Your task to perform on an android device: check android version Image 0: 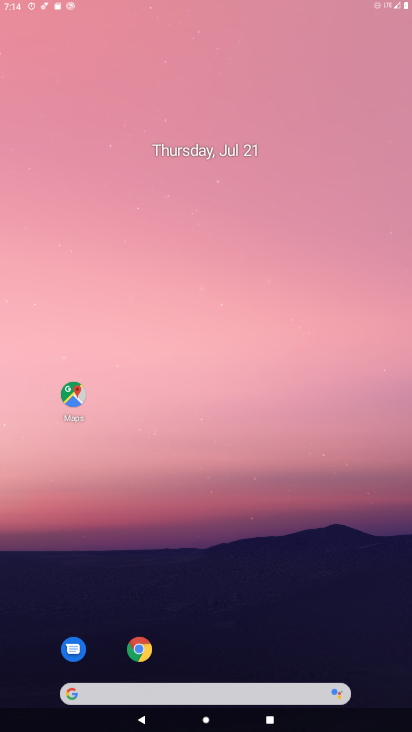
Step 0: click (292, 436)
Your task to perform on an android device: check android version Image 1: 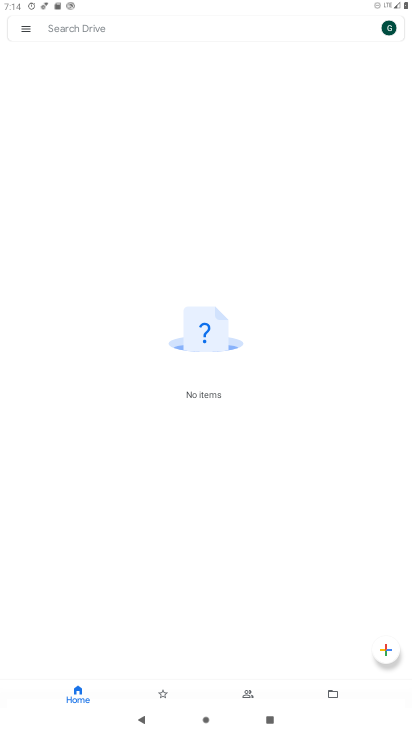
Step 1: press home button
Your task to perform on an android device: check android version Image 2: 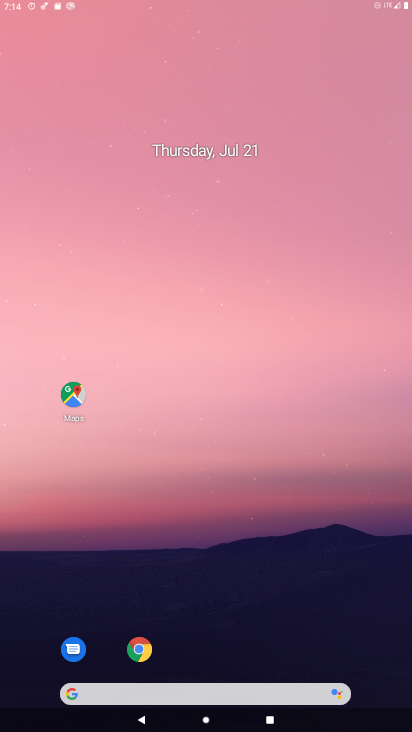
Step 2: drag from (359, 694) to (177, 20)
Your task to perform on an android device: check android version Image 3: 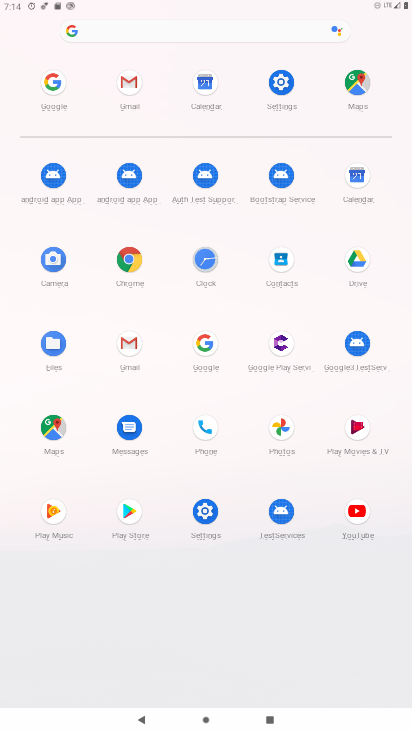
Step 3: click (286, 78)
Your task to perform on an android device: check android version Image 4: 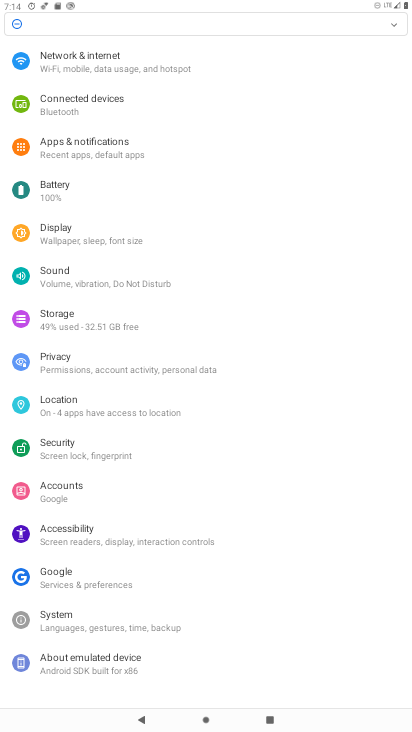
Step 4: drag from (111, 674) to (193, 92)
Your task to perform on an android device: check android version Image 5: 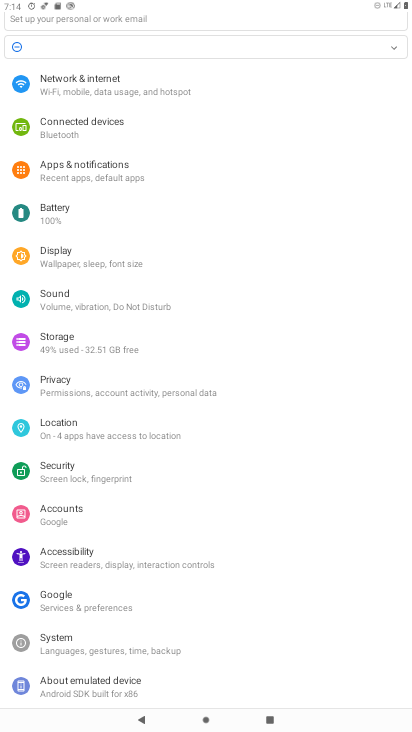
Step 5: click (139, 683)
Your task to perform on an android device: check android version Image 6: 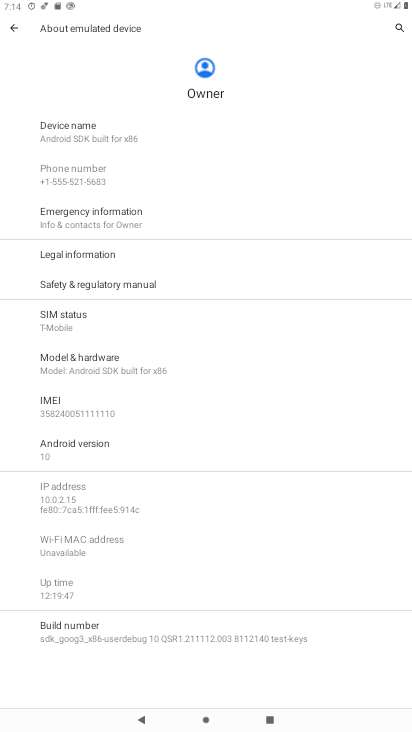
Step 6: click (88, 440)
Your task to perform on an android device: check android version Image 7: 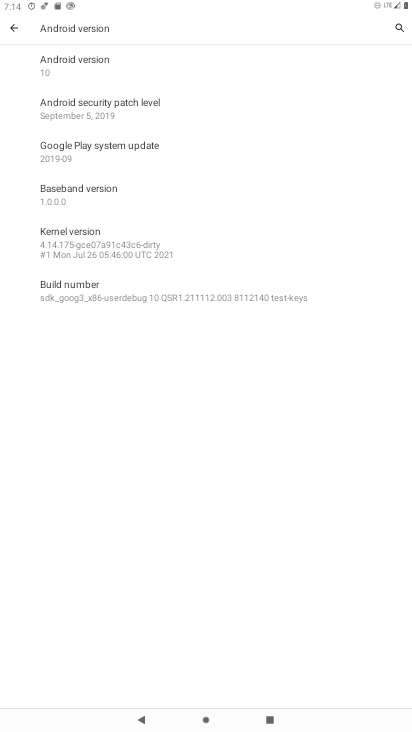
Step 7: task complete